Your task to perform on an android device: toggle pop-ups in chrome Image 0: 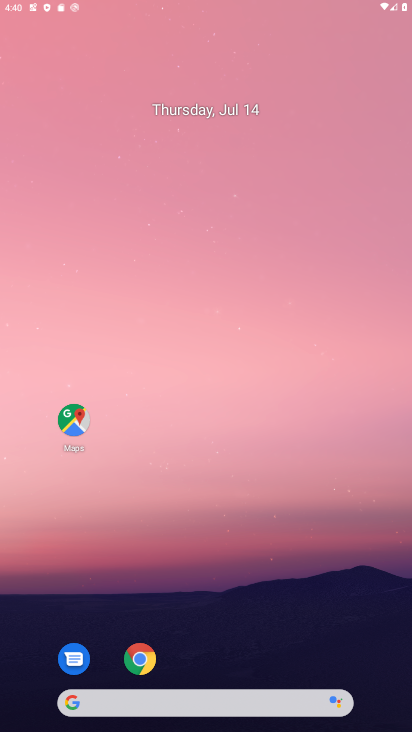
Step 0: press home button
Your task to perform on an android device: toggle pop-ups in chrome Image 1: 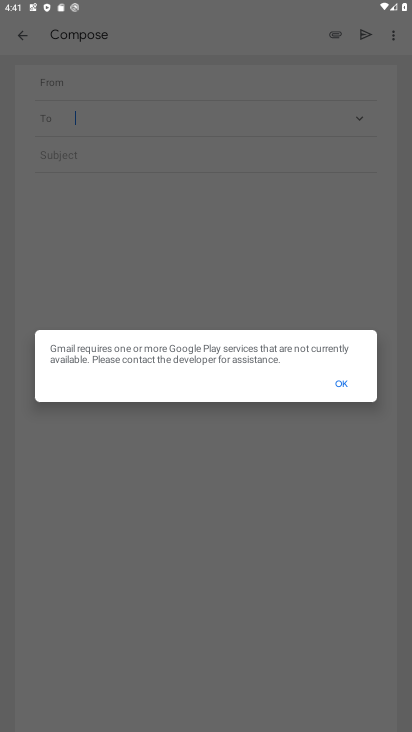
Step 1: click (225, 73)
Your task to perform on an android device: toggle pop-ups in chrome Image 2: 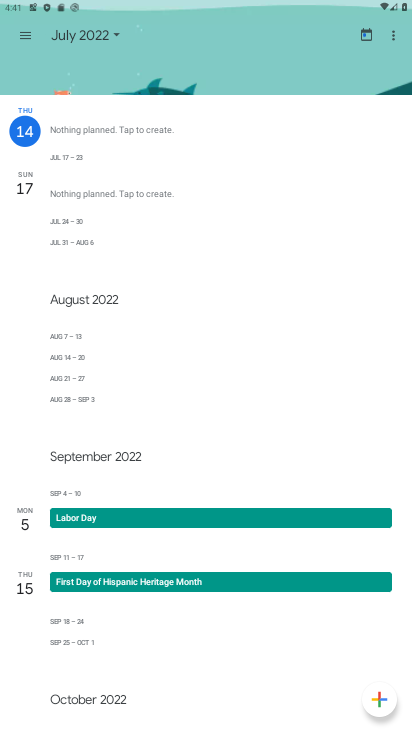
Step 2: press home button
Your task to perform on an android device: toggle pop-ups in chrome Image 3: 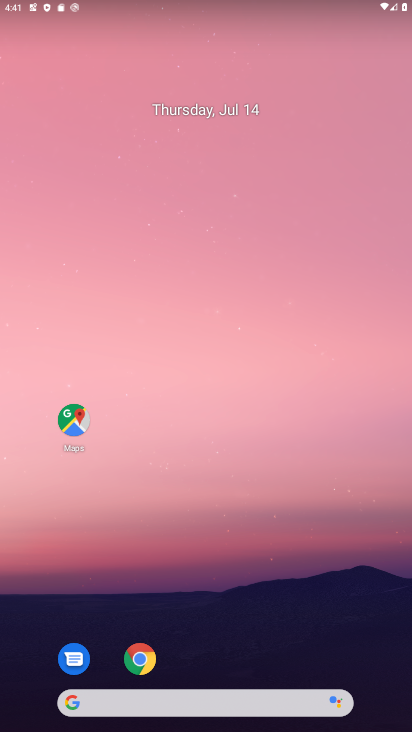
Step 3: click (139, 654)
Your task to perform on an android device: toggle pop-ups in chrome Image 4: 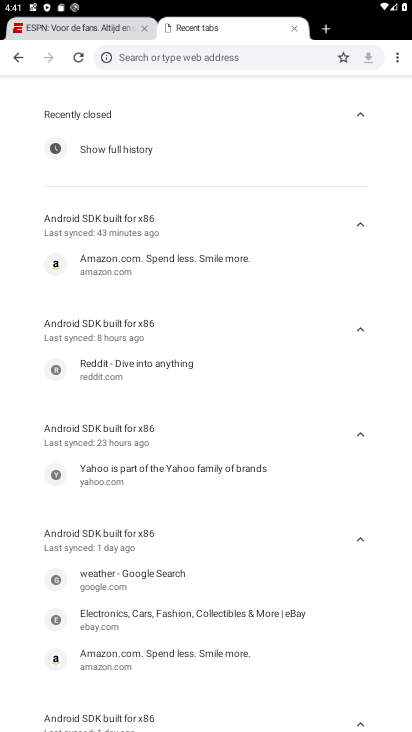
Step 4: click (397, 55)
Your task to perform on an android device: toggle pop-ups in chrome Image 5: 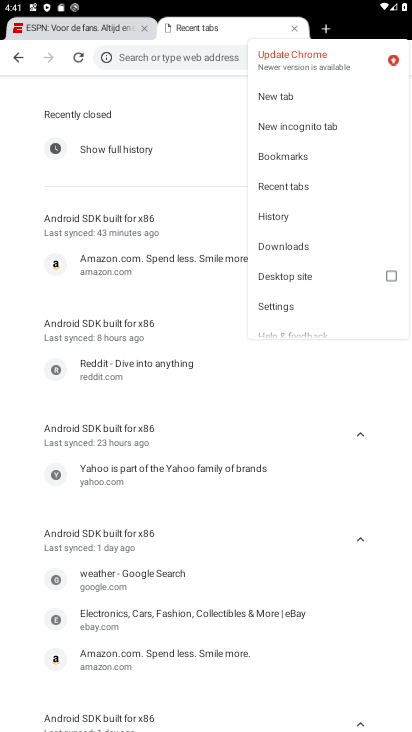
Step 5: click (302, 301)
Your task to perform on an android device: toggle pop-ups in chrome Image 6: 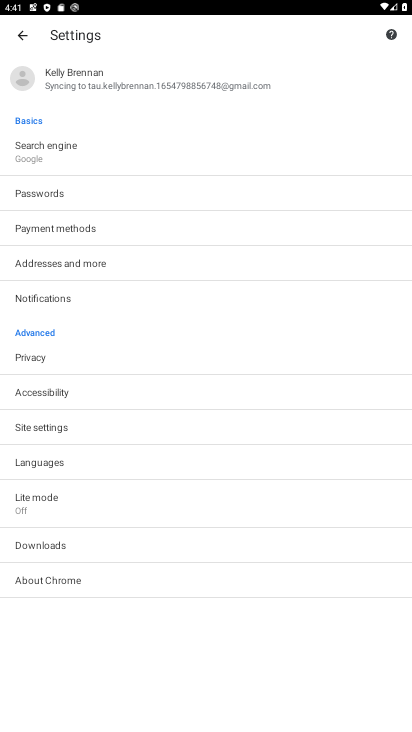
Step 6: click (76, 421)
Your task to perform on an android device: toggle pop-ups in chrome Image 7: 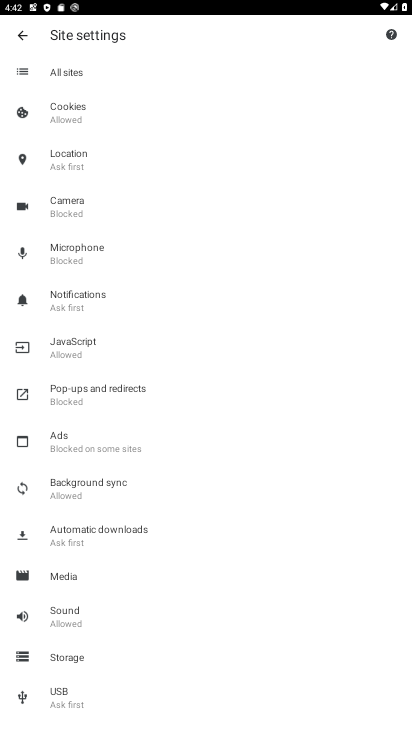
Step 7: click (113, 400)
Your task to perform on an android device: toggle pop-ups in chrome Image 8: 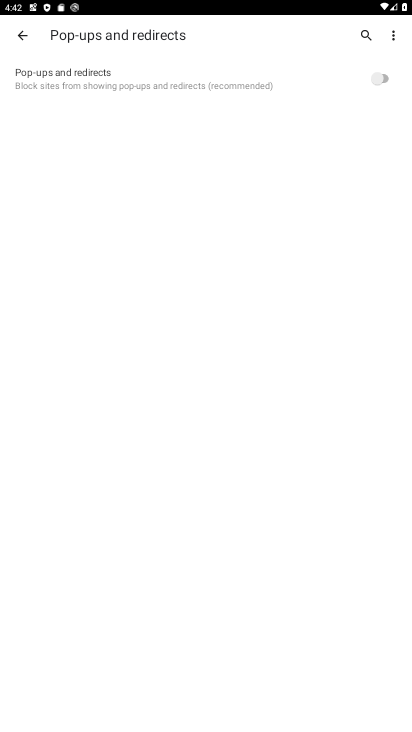
Step 8: click (379, 80)
Your task to perform on an android device: toggle pop-ups in chrome Image 9: 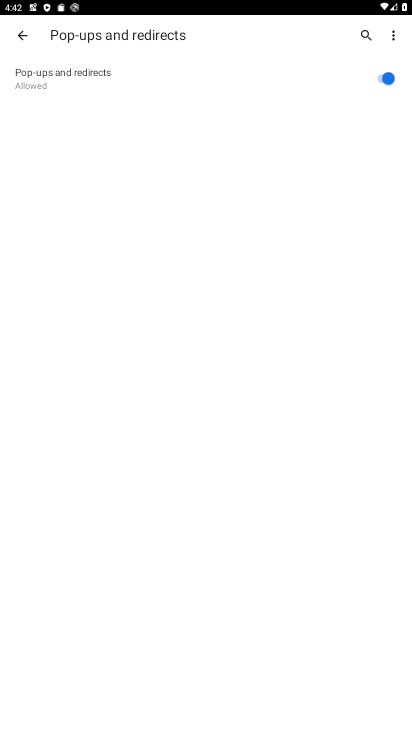
Step 9: task complete